Your task to perform on an android device: change the clock display to digital Image 0: 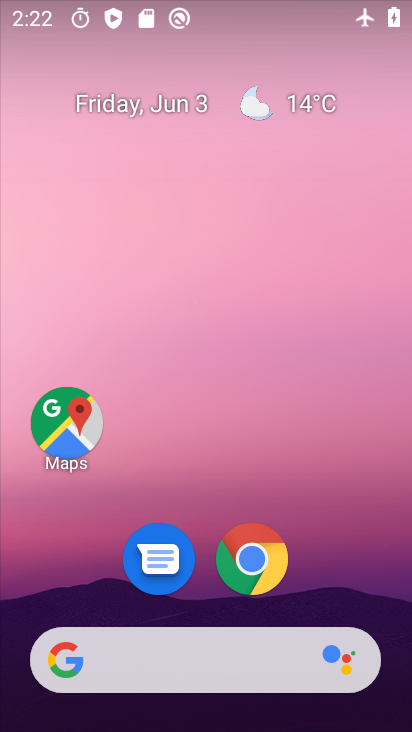
Step 0: drag from (200, 448) to (371, 297)
Your task to perform on an android device: change the clock display to digital Image 1: 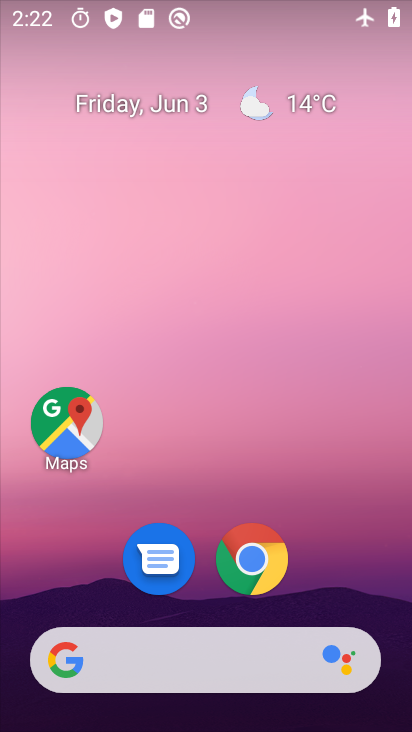
Step 1: drag from (180, 624) to (111, 29)
Your task to perform on an android device: change the clock display to digital Image 2: 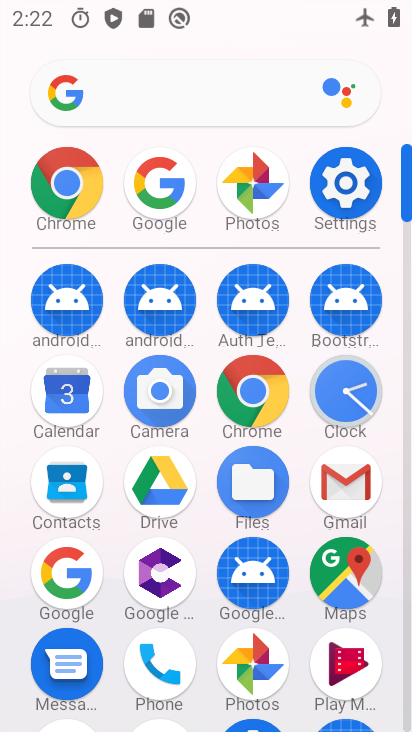
Step 2: click (357, 391)
Your task to perform on an android device: change the clock display to digital Image 3: 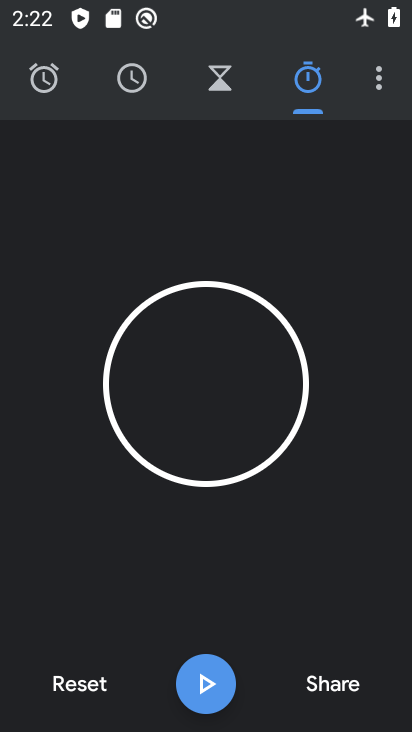
Step 3: click (385, 78)
Your task to perform on an android device: change the clock display to digital Image 4: 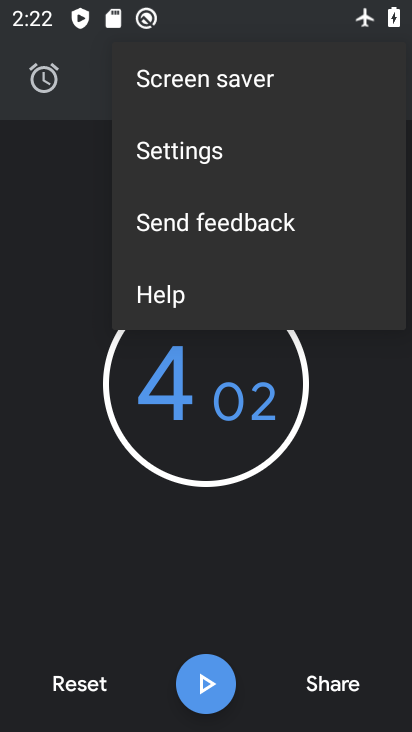
Step 4: click (213, 155)
Your task to perform on an android device: change the clock display to digital Image 5: 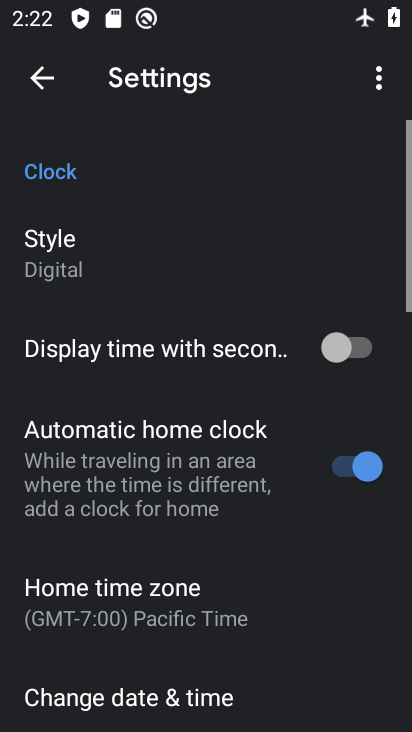
Step 5: click (73, 249)
Your task to perform on an android device: change the clock display to digital Image 6: 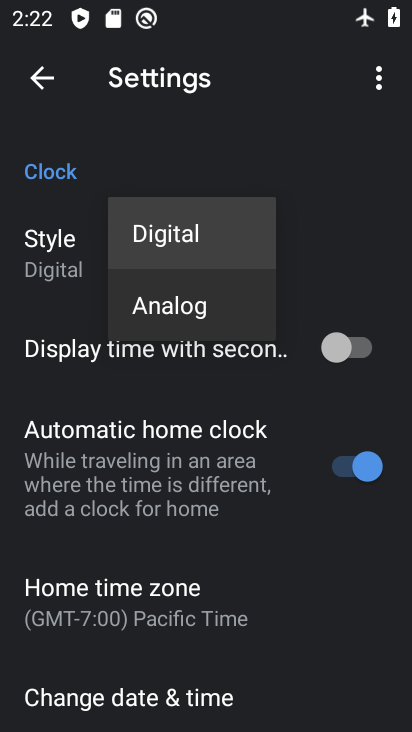
Step 6: click (239, 243)
Your task to perform on an android device: change the clock display to digital Image 7: 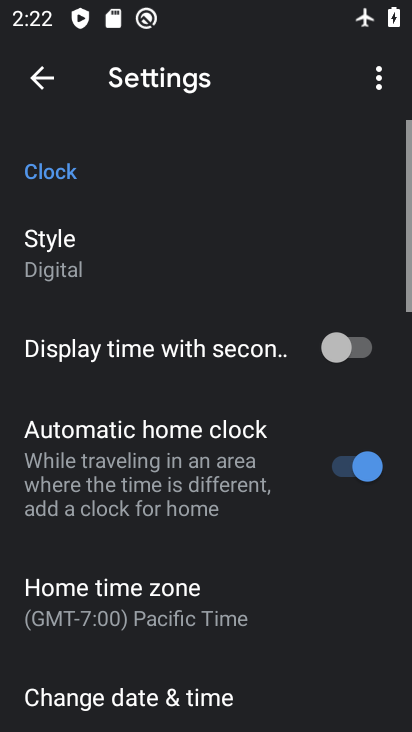
Step 7: task complete